Your task to perform on an android device: show emergency info Image 0: 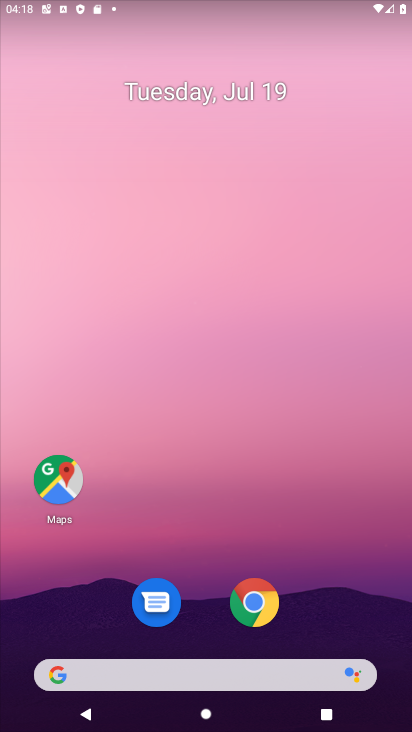
Step 0: drag from (215, 628) to (330, 76)
Your task to perform on an android device: show emergency info Image 1: 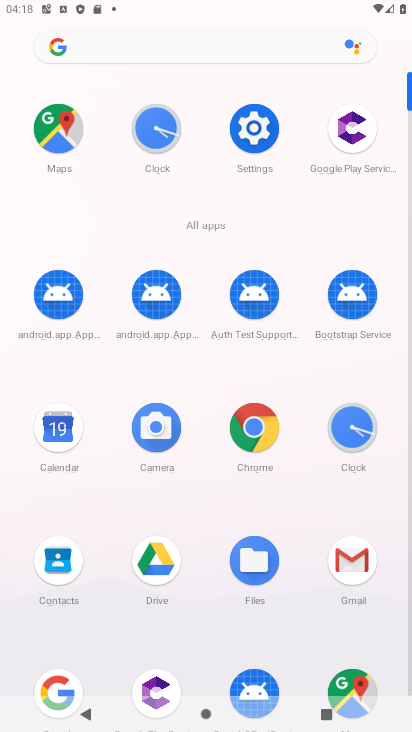
Step 1: click (256, 139)
Your task to perform on an android device: show emergency info Image 2: 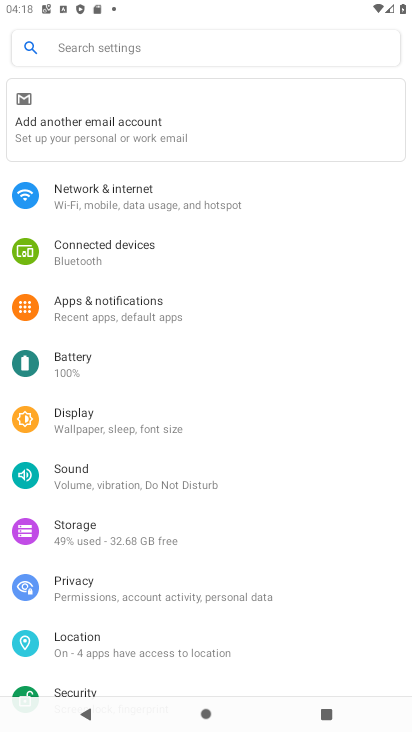
Step 2: drag from (134, 648) to (139, 68)
Your task to perform on an android device: show emergency info Image 3: 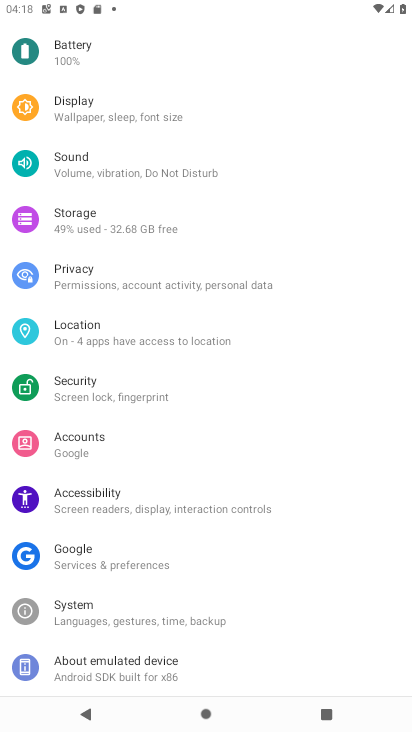
Step 3: drag from (153, 87) to (145, 40)
Your task to perform on an android device: show emergency info Image 4: 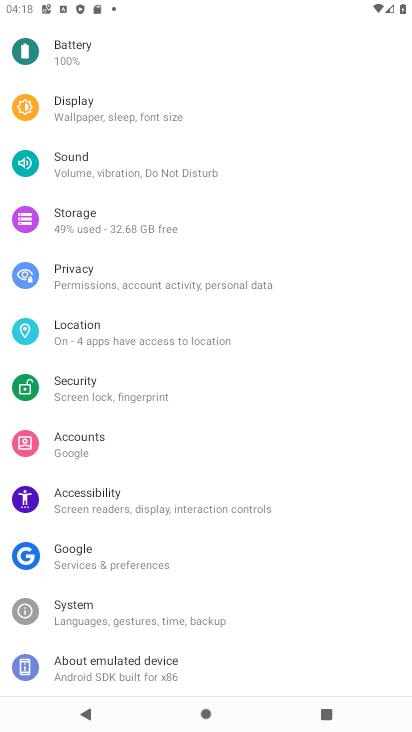
Step 4: click (113, 689)
Your task to perform on an android device: show emergency info Image 5: 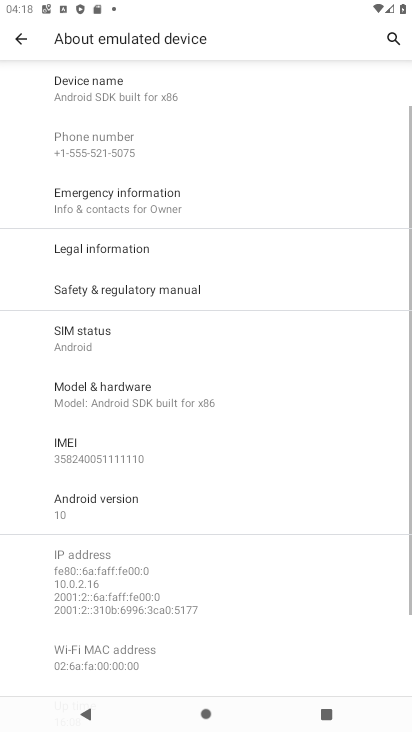
Step 5: click (212, 212)
Your task to perform on an android device: show emergency info Image 6: 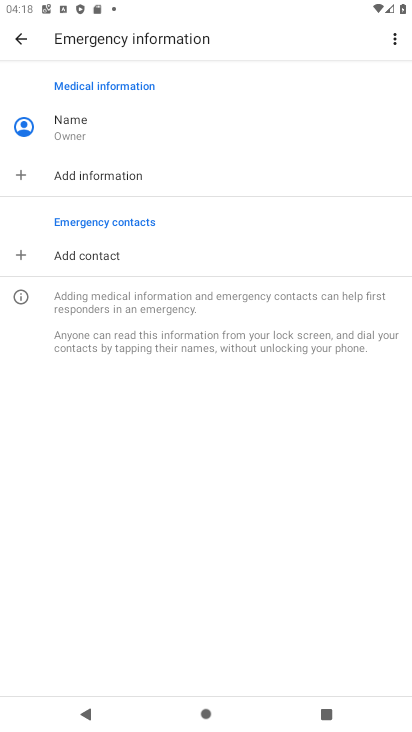
Step 6: task complete